Your task to perform on an android device: Clear the cart on ebay.com. Image 0: 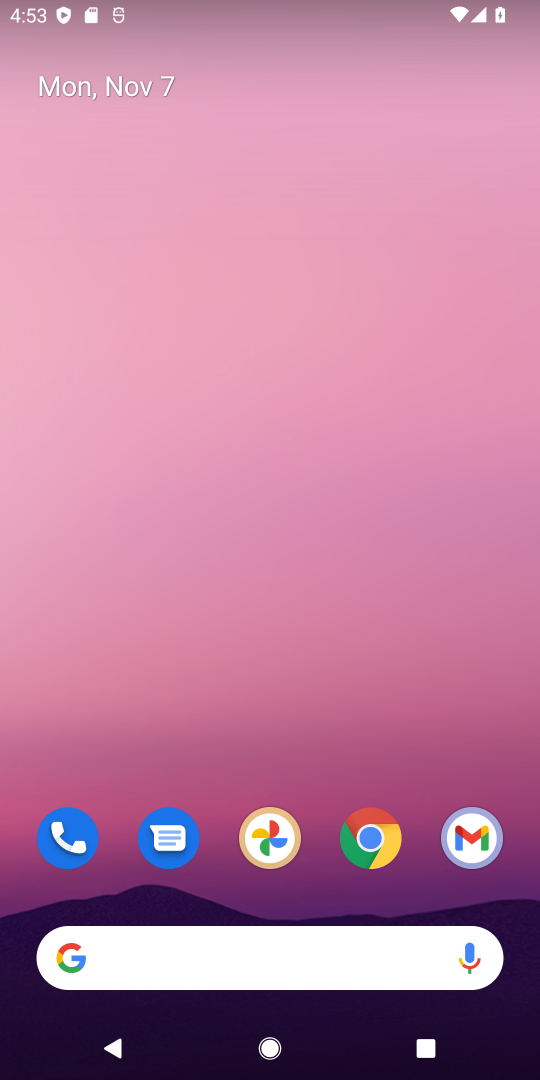
Step 0: click (382, 839)
Your task to perform on an android device: Clear the cart on ebay.com. Image 1: 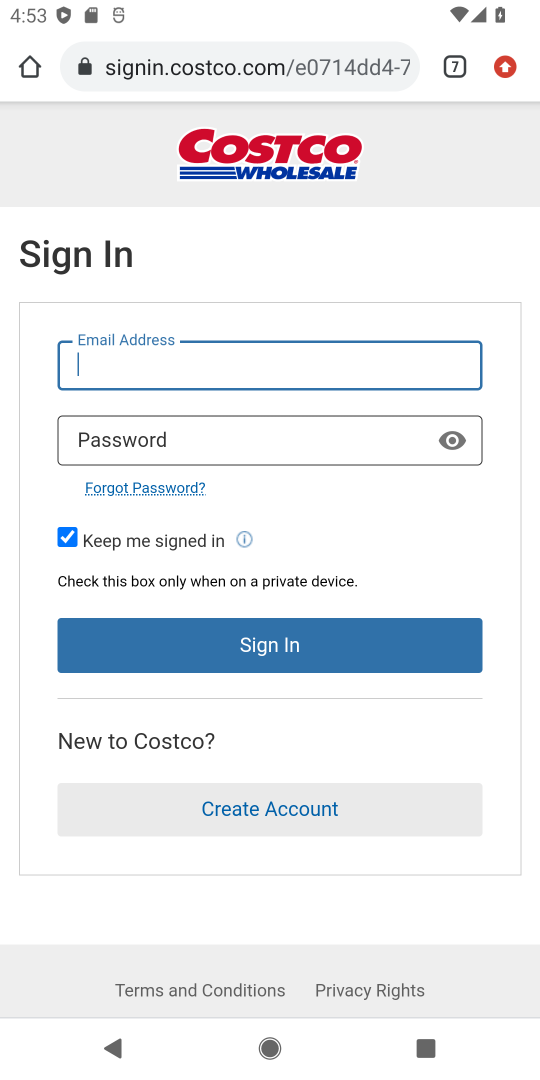
Step 1: click (456, 74)
Your task to perform on an android device: Clear the cart on ebay.com. Image 2: 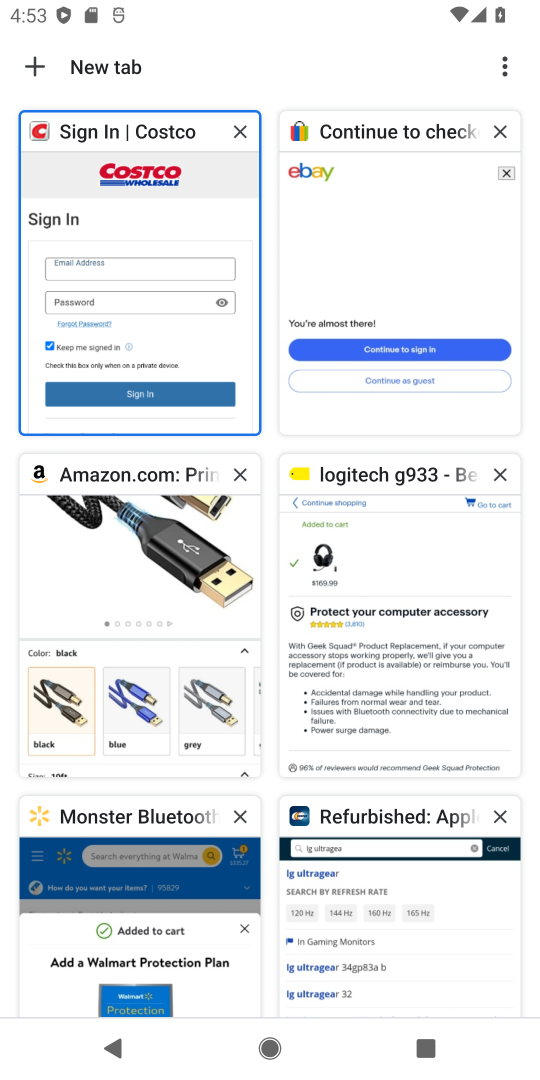
Step 2: click (408, 202)
Your task to perform on an android device: Clear the cart on ebay.com. Image 3: 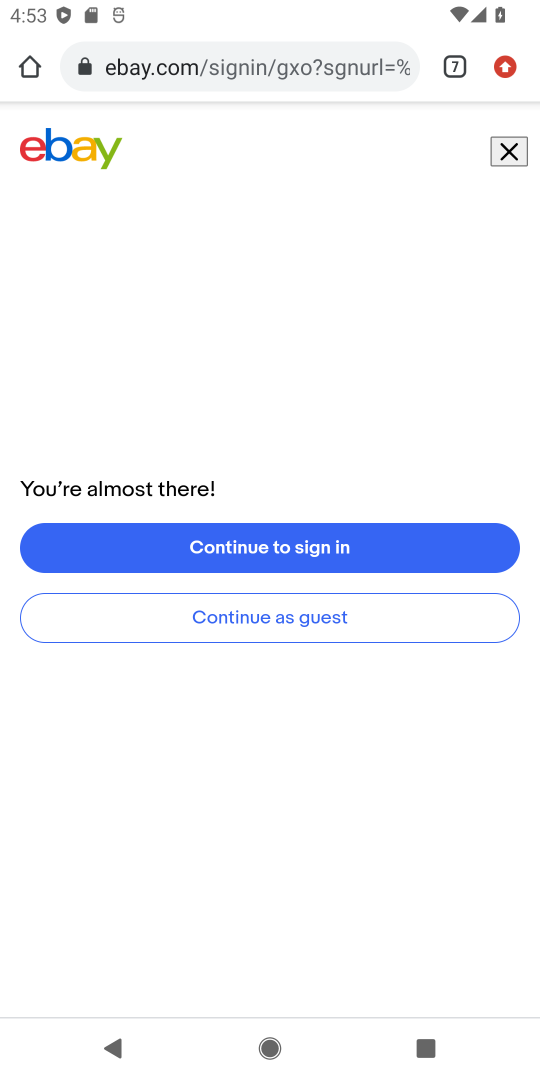
Step 3: click (511, 145)
Your task to perform on an android device: Clear the cart on ebay.com. Image 4: 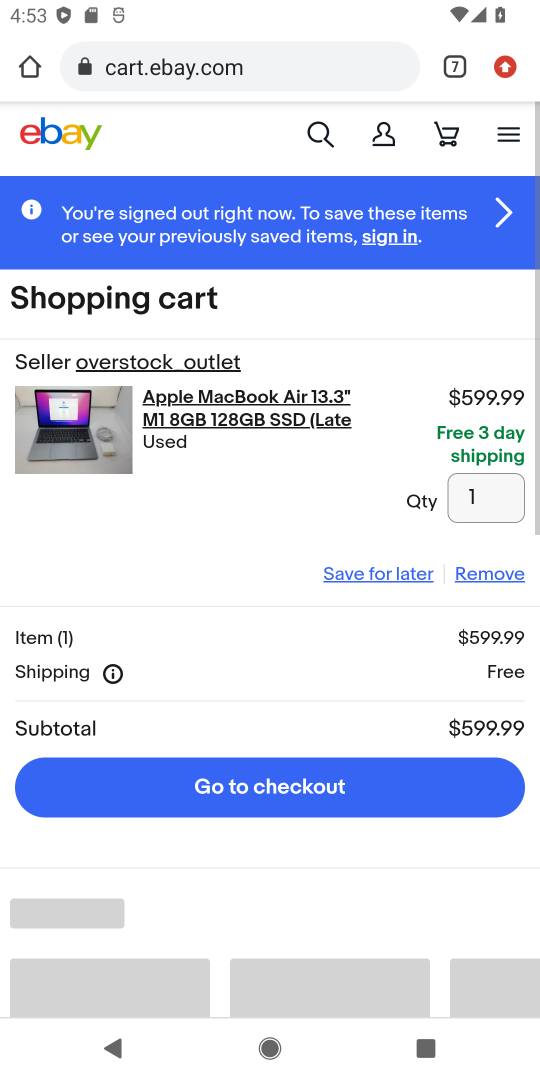
Step 4: click (445, 133)
Your task to perform on an android device: Clear the cart on ebay.com. Image 5: 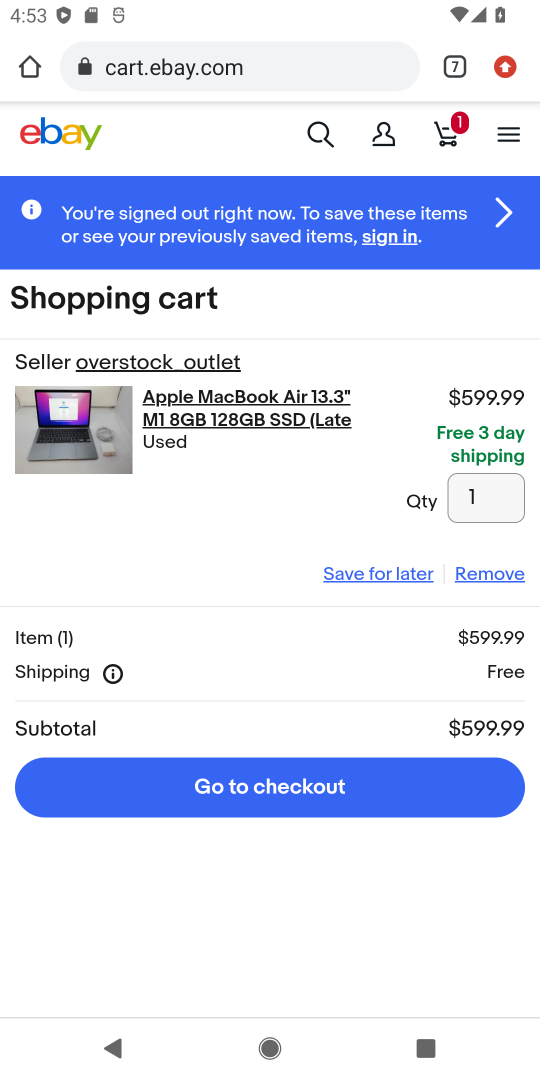
Step 5: click (493, 604)
Your task to perform on an android device: Clear the cart on ebay.com. Image 6: 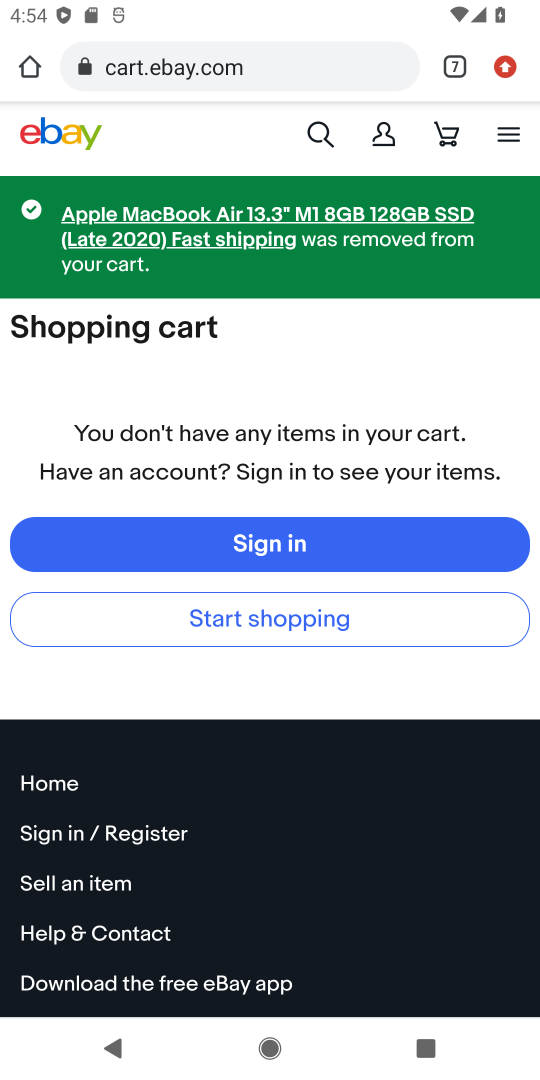
Step 6: task complete